Your task to perform on an android device: turn on notifications settings in the gmail app Image 0: 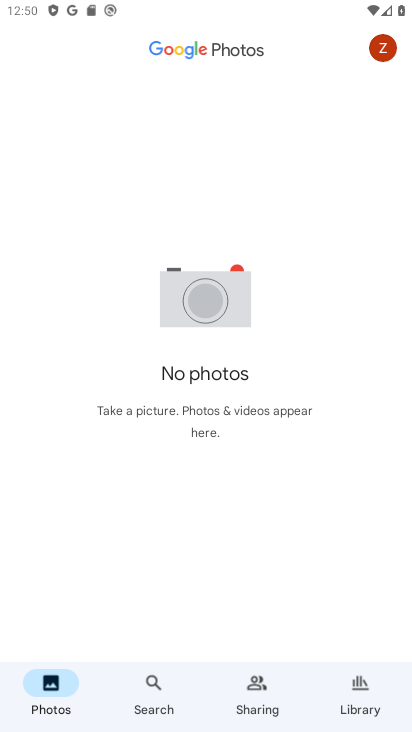
Step 0: press home button
Your task to perform on an android device: turn on notifications settings in the gmail app Image 1: 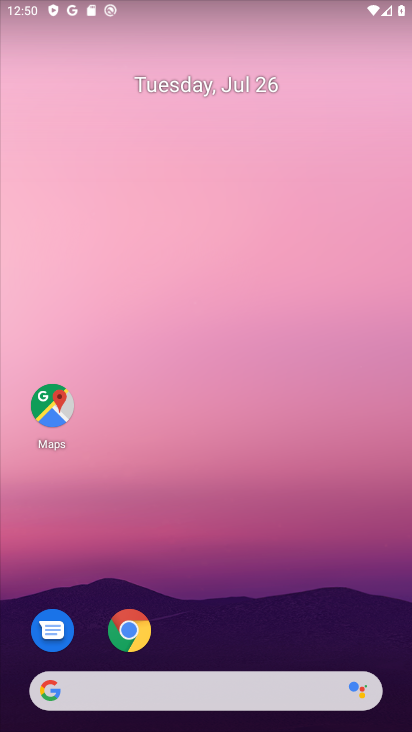
Step 1: drag from (305, 505) to (340, 0)
Your task to perform on an android device: turn on notifications settings in the gmail app Image 2: 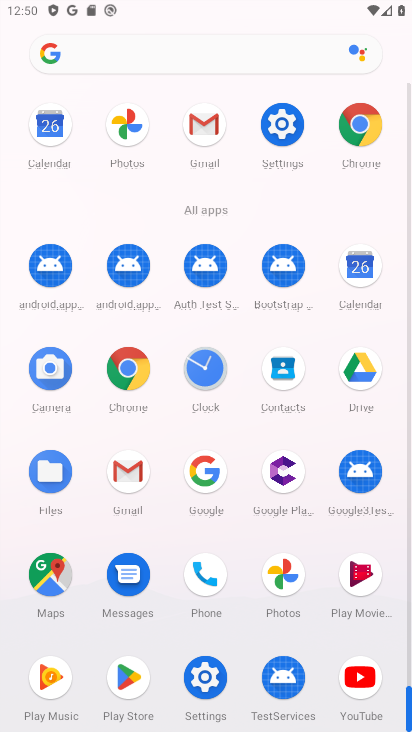
Step 2: click (210, 126)
Your task to perform on an android device: turn on notifications settings in the gmail app Image 3: 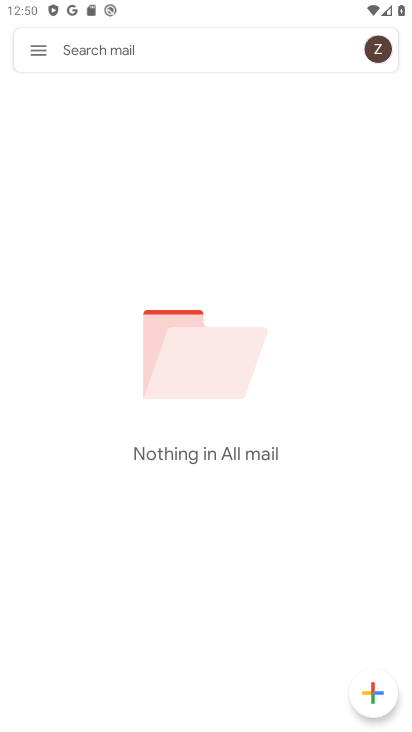
Step 3: click (25, 59)
Your task to perform on an android device: turn on notifications settings in the gmail app Image 4: 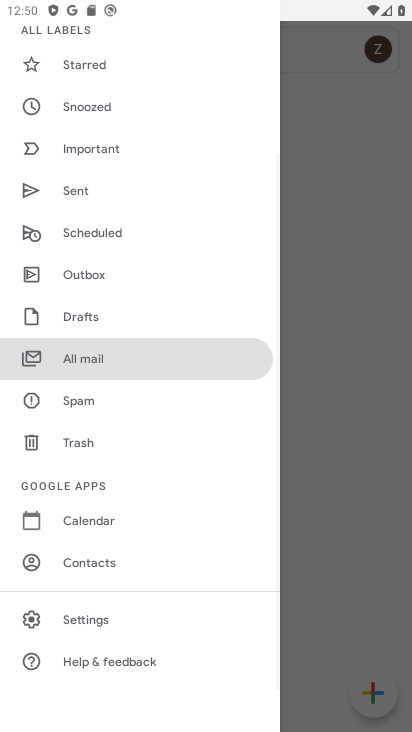
Step 4: drag from (110, 590) to (90, 199)
Your task to perform on an android device: turn on notifications settings in the gmail app Image 5: 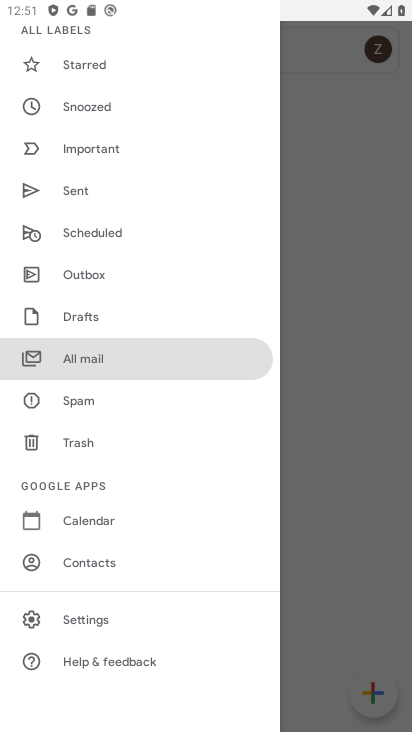
Step 5: click (96, 621)
Your task to perform on an android device: turn on notifications settings in the gmail app Image 6: 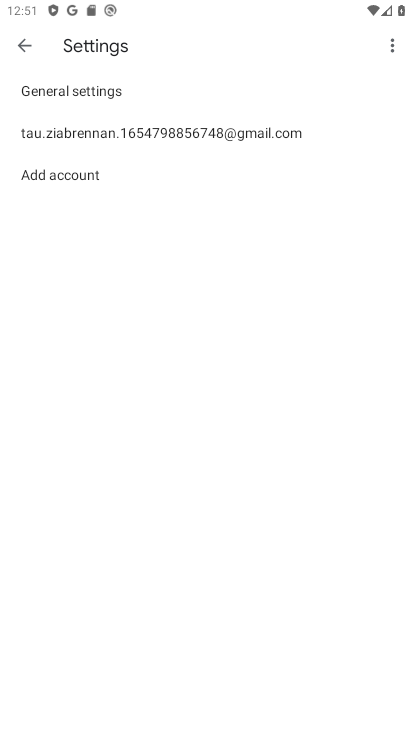
Step 6: click (46, 138)
Your task to perform on an android device: turn on notifications settings in the gmail app Image 7: 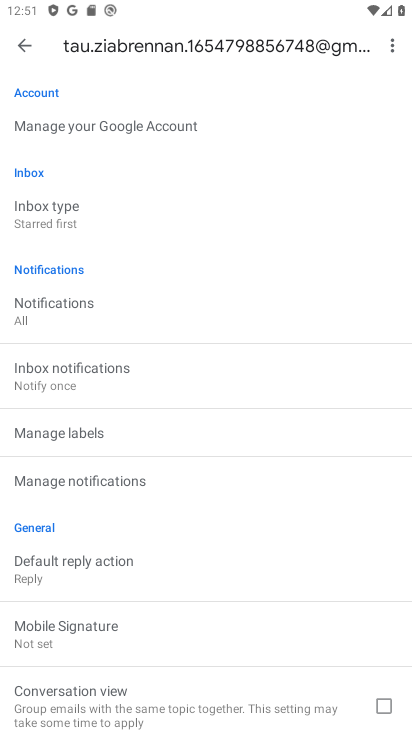
Step 7: click (44, 308)
Your task to perform on an android device: turn on notifications settings in the gmail app Image 8: 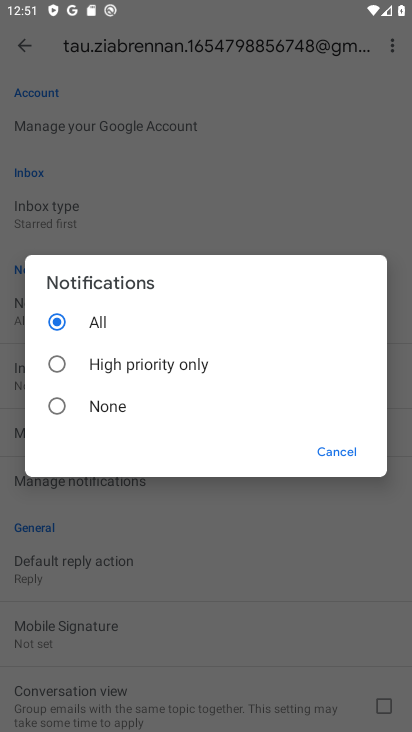
Step 8: task complete